Your task to perform on an android device: Open maps Image 0: 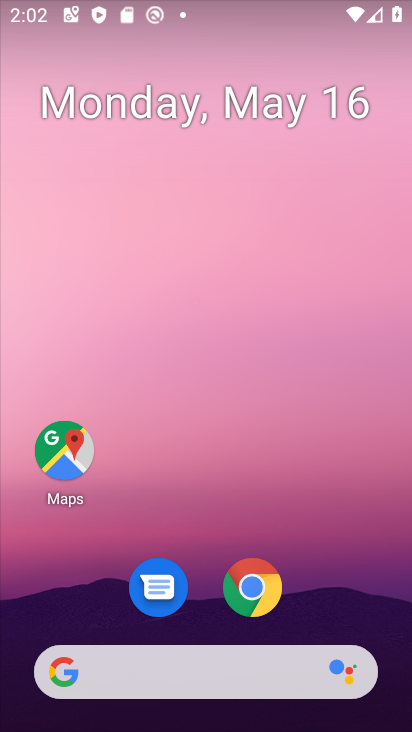
Step 0: drag from (359, 610) to (198, 6)
Your task to perform on an android device: Open maps Image 1: 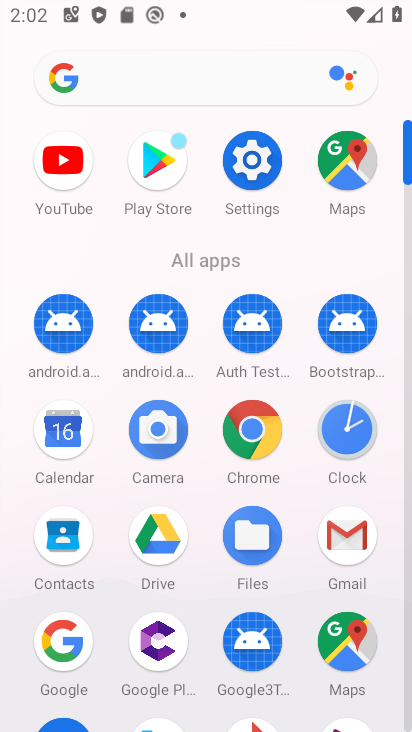
Step 1: click (345, 171)
Your task to perform on an android device: Open maps Image 2: 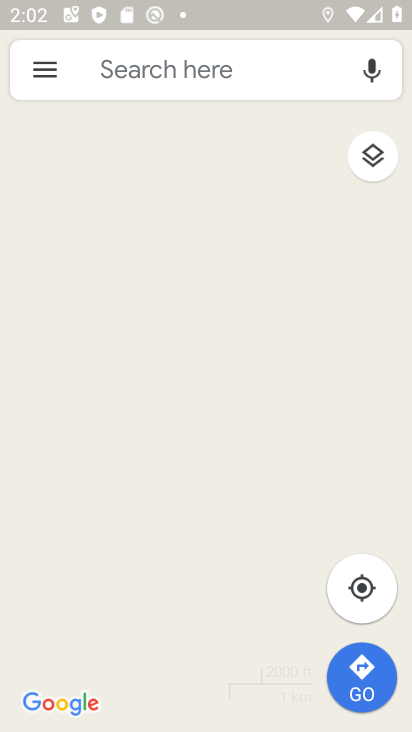
Step 2: task complete